Your task to perform on an android device: Open eBay Image 0: 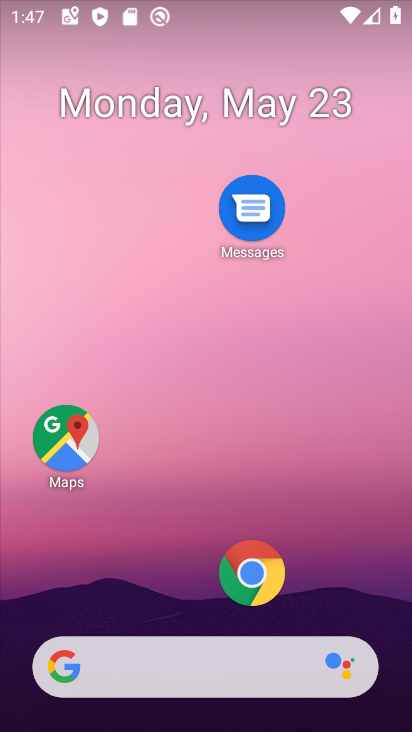
Step 0: drag from (122, 542) to (222, 30)
Your task to perform on an android device: Open eBay Image 1: 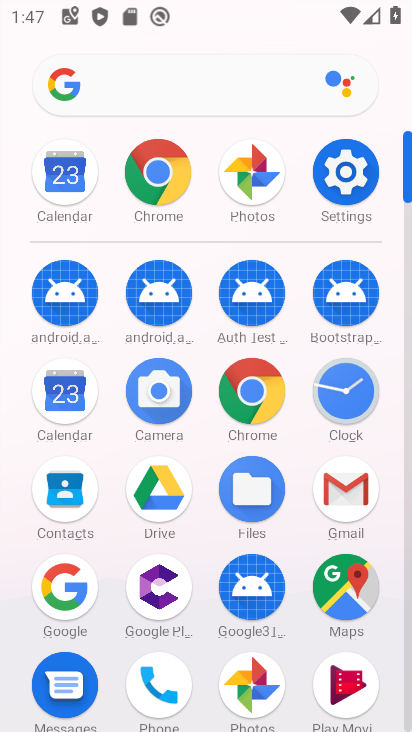
Step 1: click (158, 187)
Your task to perform on an android device: Open eBay Image 2: 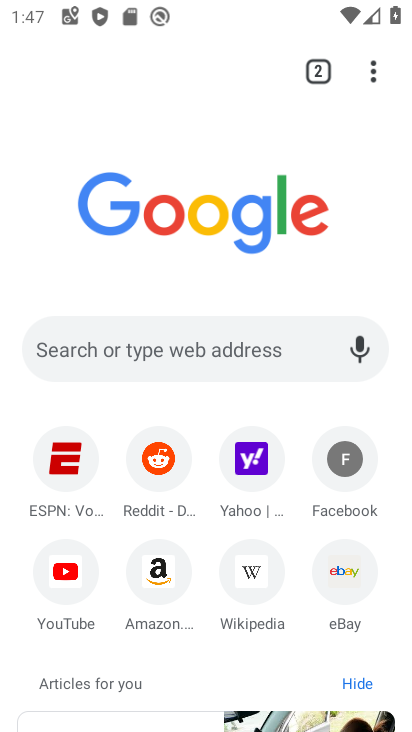
Step 2: click (269, 357)
Your task to perform on an android device: Open eBay Image 3: 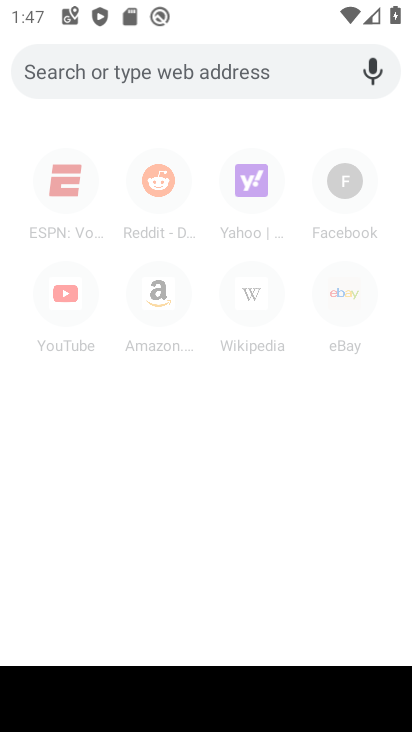
Step 3: type "ebay"
Your task to perform on an android device: Open eBay Image 4: 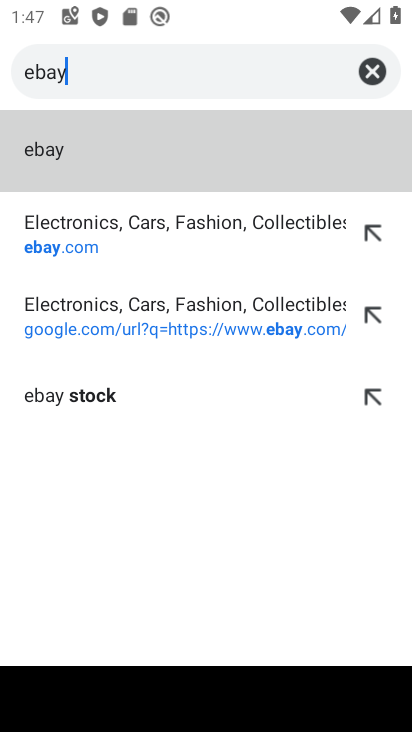
Step 4: click (260, 152)
Your task to perform on an android device: Open eBay Image 5: 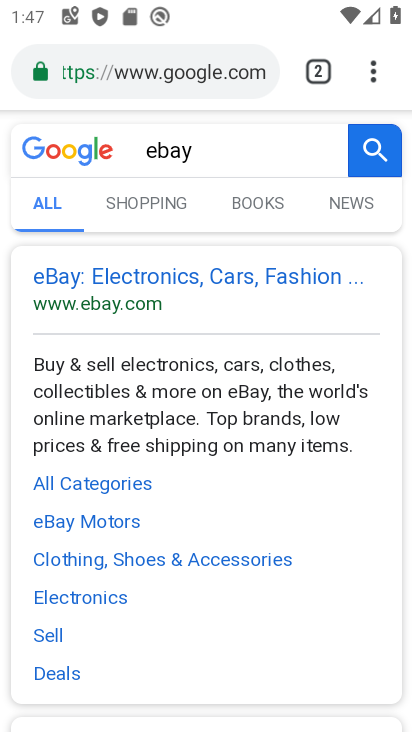
Step 5: click (96, 272)
Your task to perform on an android device: Open eBay Image 6: 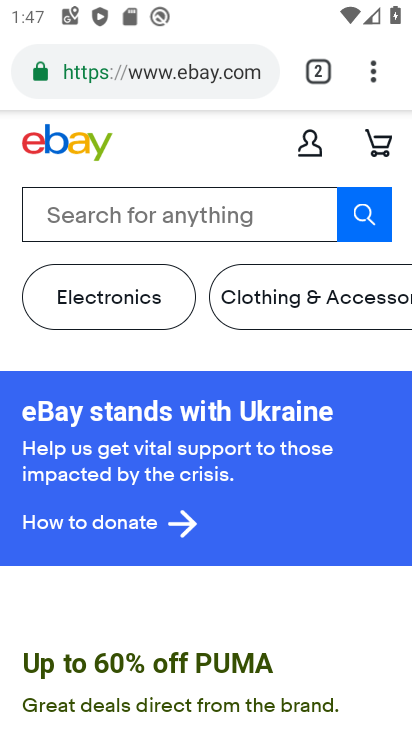
Step 6: task complete